Your task to perform on an android device: read, delete, or share a saved page in the chrome app Image 0: 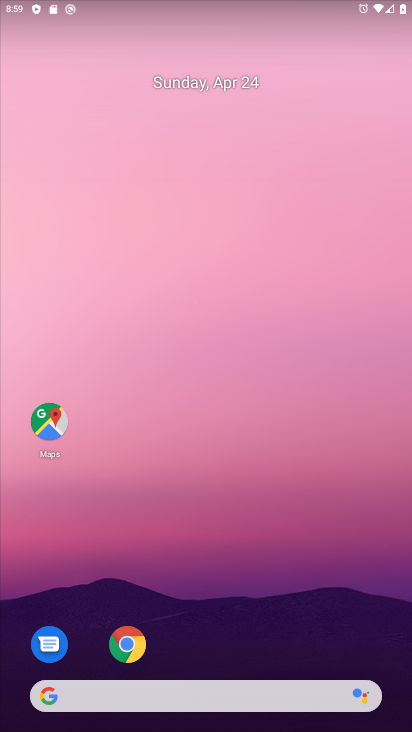
Step 0: drag from (211, 683) to (156, 10)
Your task to perform on an android device: read, delete, or share a saved page in the chrome app Image 1: 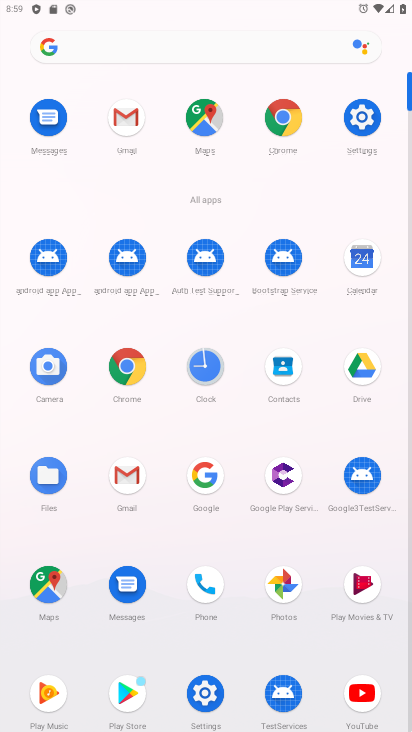
Step 1: click (272, 115)
Your task to perform on an android device: read, delete, or share a saved page in the chrome app Image 2: 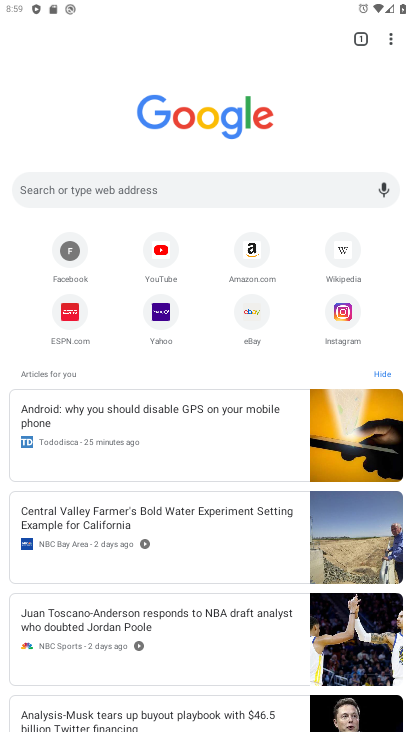
Step 2: task complete